Your task to perform on an android device: Go to network settings Image 0: 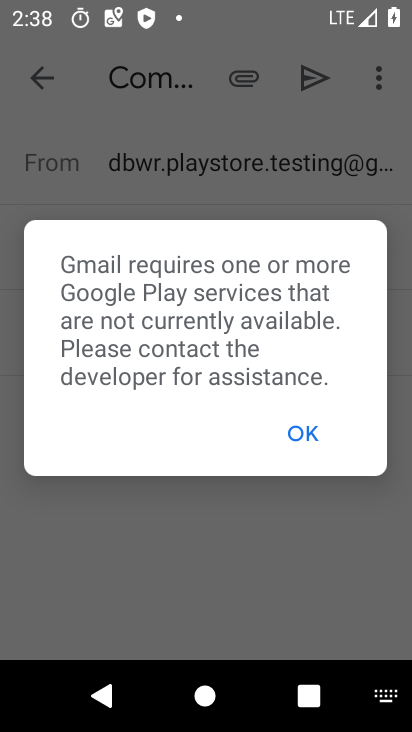
Step 0: press home button
Your task to perform on an android device: Go to network settings Image 1: 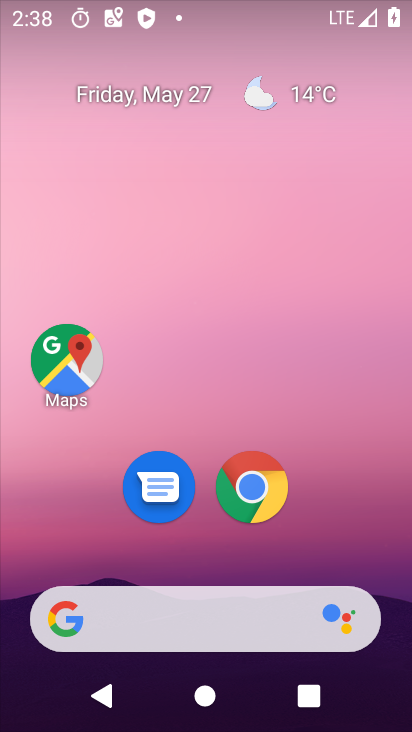
Step 1: drag from (329, 478) to (347, 131)
Your task to perform on an android device: Go to network settings Image 2: 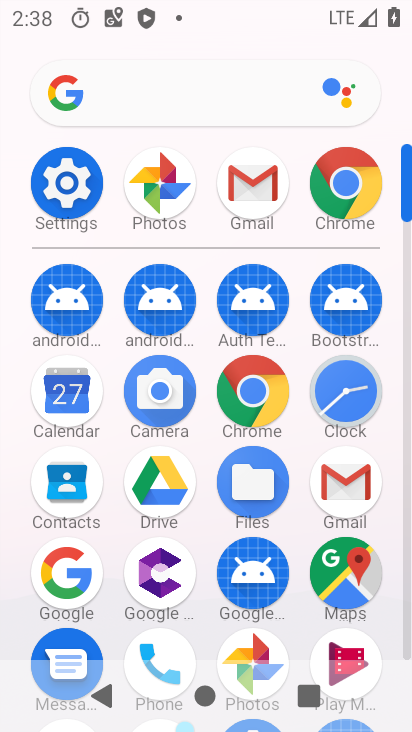
Step 2: click (88, 183)
Your task to perform on an android device: Go to network settings Image 3: 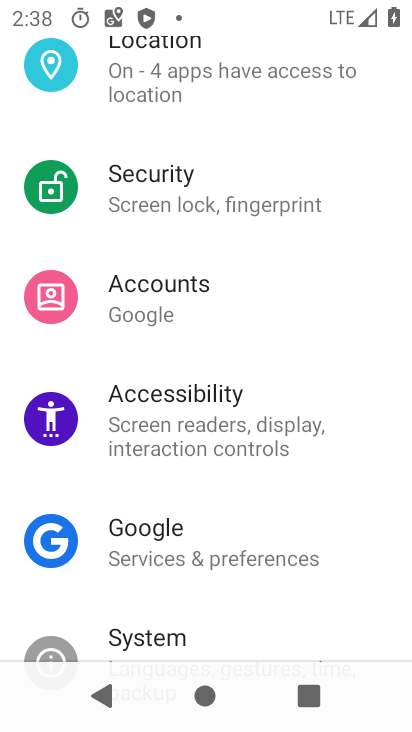
Step 3: drag from (224, 567) to (260, 177)
Your task to perform on an android device: Go to network settings Image 4: 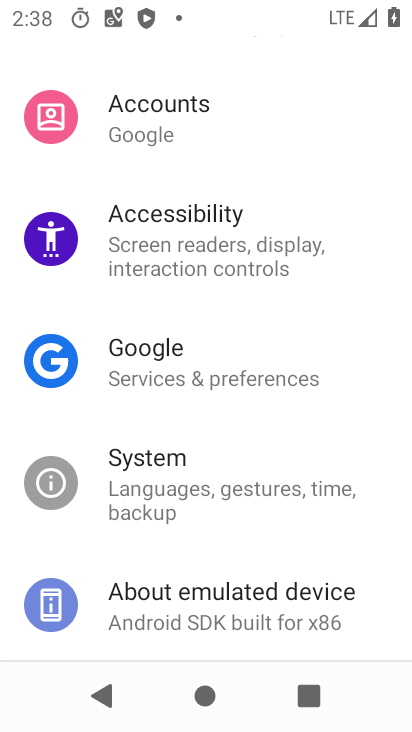
Step 4: drag from (246, 189) to (236, 650)
Your task to perform on an android device: Go to network settings Image 5: 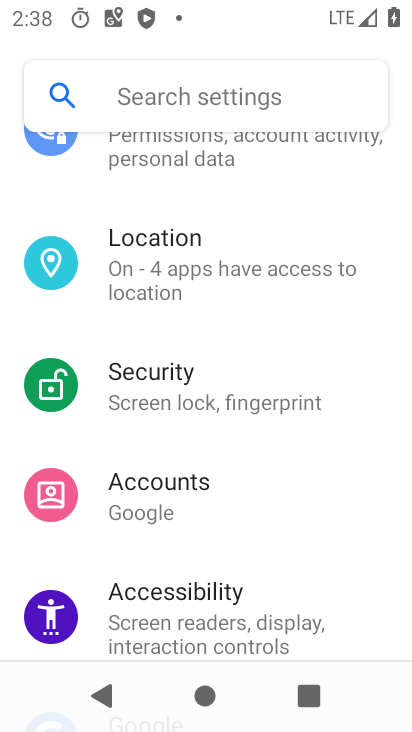
Step 5: drag from (226, 258) to (260, 625)
Your task to perform on an android device: Go to network settings Image 6: 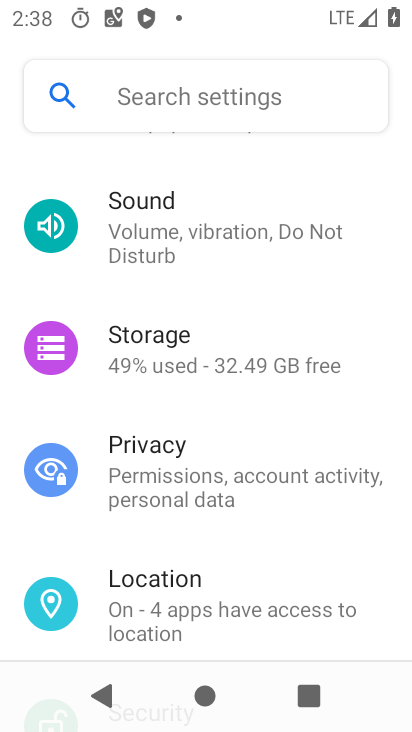
Step 6: drag from (240, 241) to (271, 634)
Your task to perform on an android device: Go to network settings Image 7: 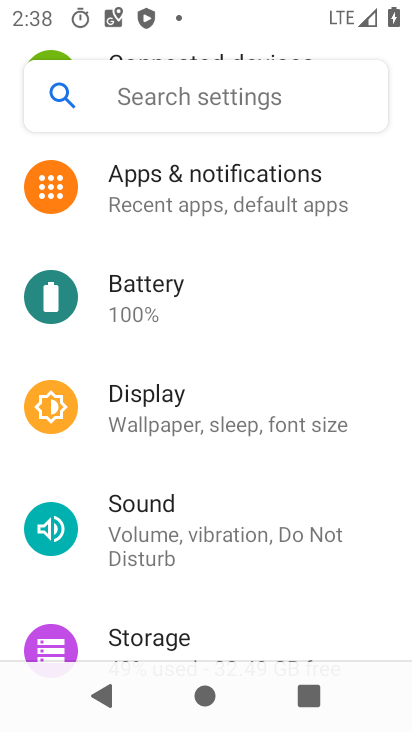
Step 7: drag from (192, 219) to (196, 602)
Your task to perform on an android device: Go to network settings Image 8: 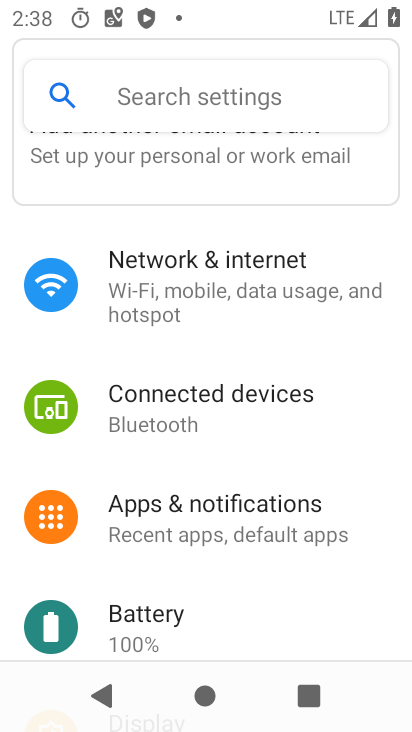
Step 8: click (185, 263)
Your task to perform on an android device: Go to network settings Image 9: 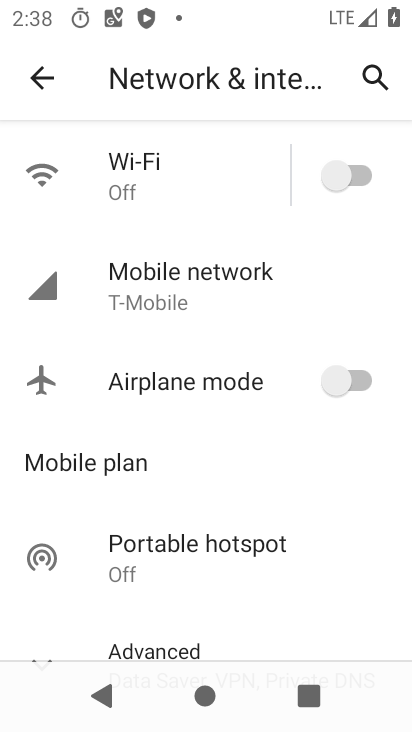
Step 9: task complete